Your task to perform on an android device: change notifications settings Image 0: 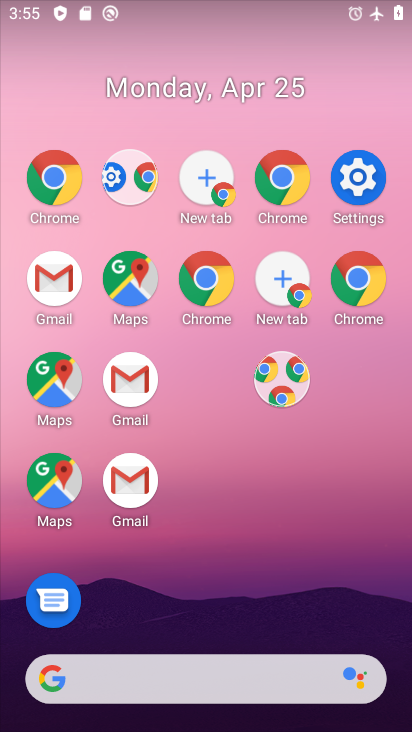
Step 0: drag from (270, 543) to (219, 6)
Your task to perform on an android device: change notifications settings Image 1: 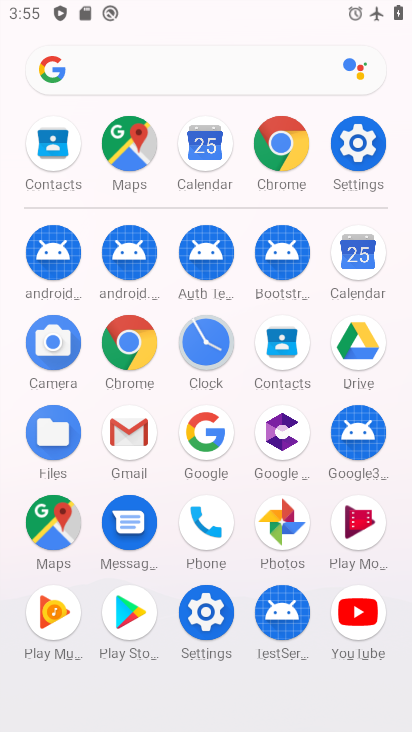
Step 1: click (361, 150)
Your task to perform on an android device: change notifications settings Image 2: 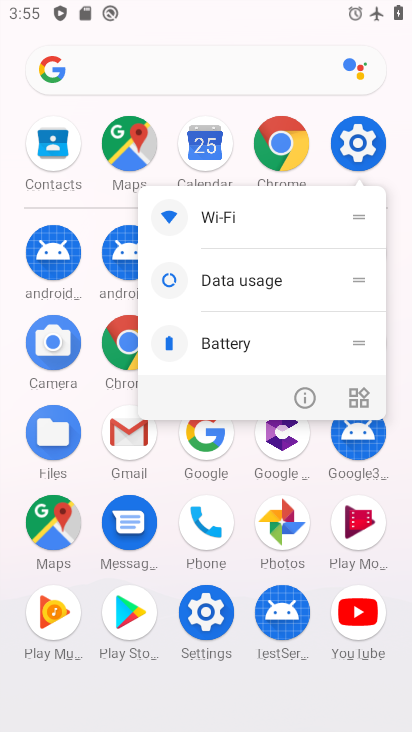
Step 2: click (357, 151)
Your task to perform on an android device: change notifications settings Image 3: 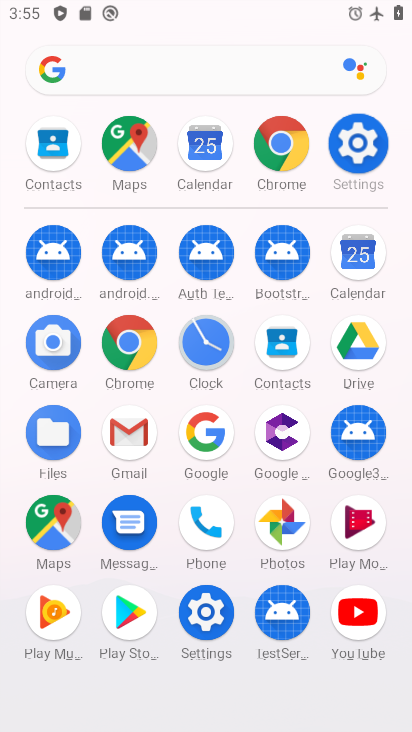
Step 3: click (357, 151)
Your task to perform on an android device: change notifications settings Image 4: 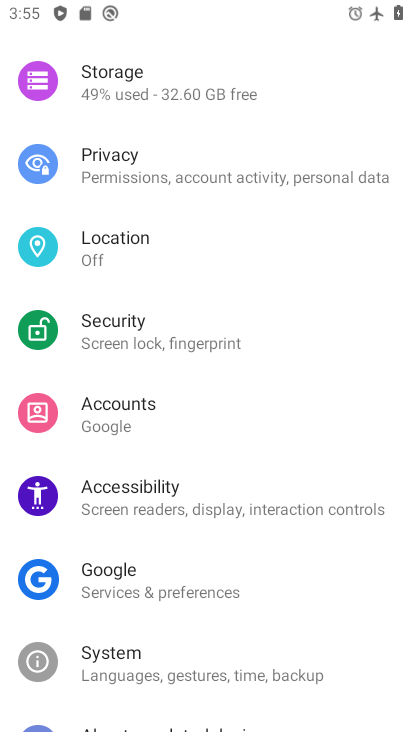
Step 4: click (357, 145)
Your task to perform on an android device: change notifications settings Image 5: 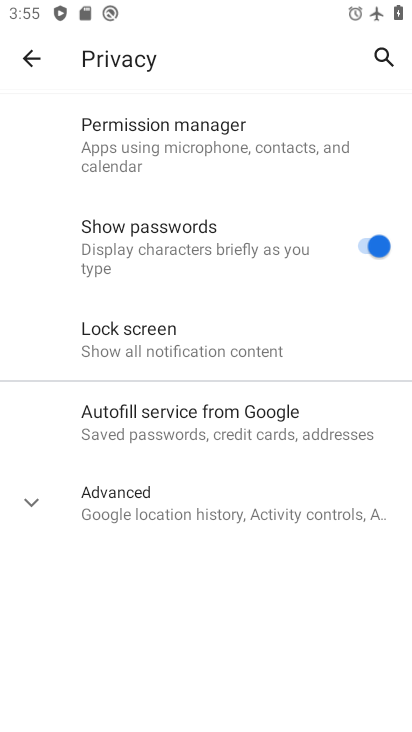
Step 5: click (17, 60)
Your task to perform on an android device: change notifications settings Image 6: 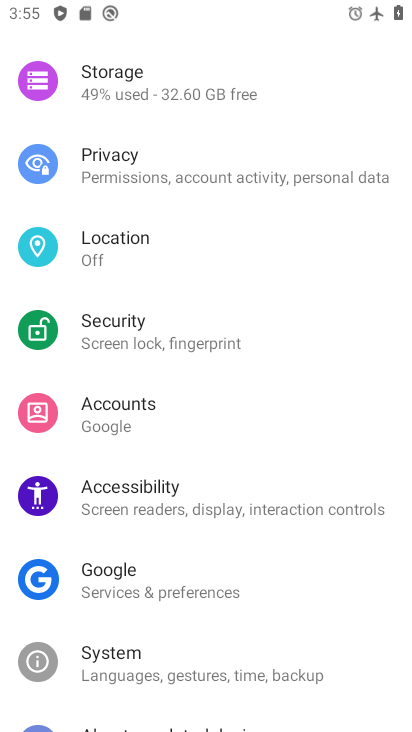
Step 6: drag from (128, 93) to (155, 590)
Your task to perform on an android device: change notifications settings Image 7: 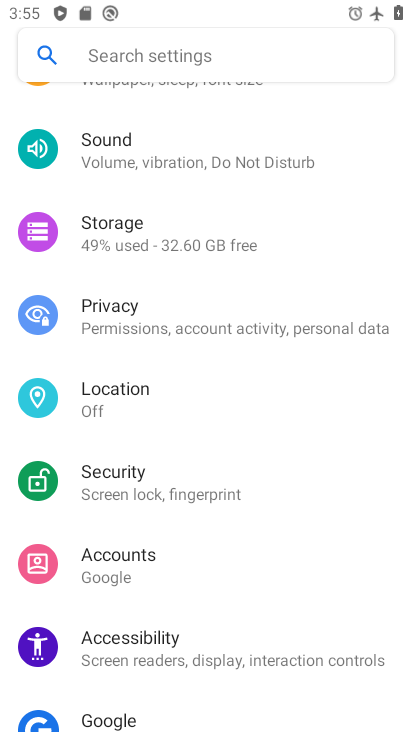
Step 7: drag from (181, 473) to (190, 536)
Your task to perform on an android device: change notifications settings Image 8: 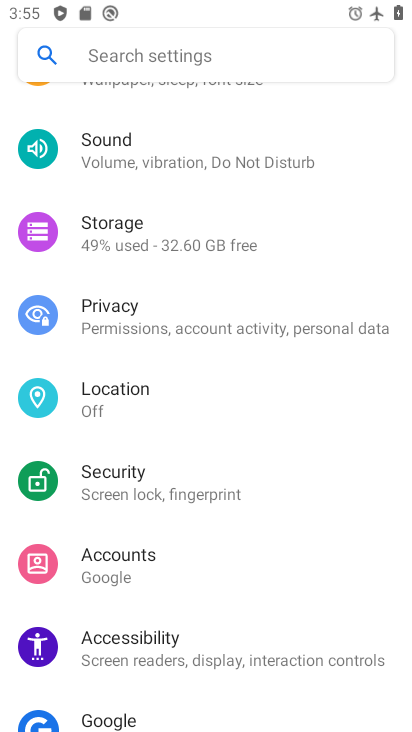
Step 8: drag from (161, 435) to (109, 2)
Your task to perform on an android device: change notifications settings Image 9: 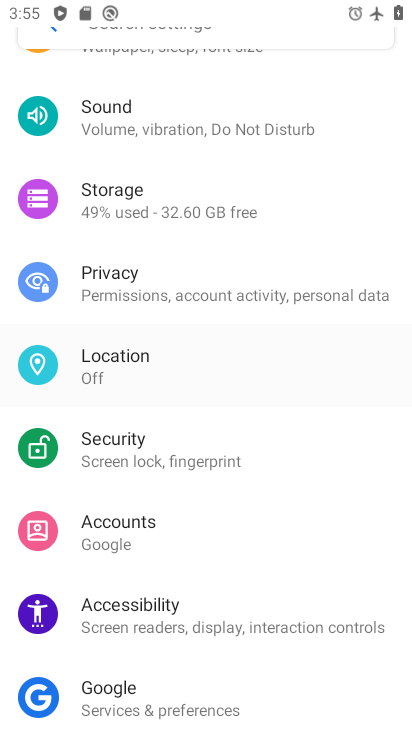
Step 9: drag from (234, 496) to (184, 7)
Your task to perform on an android device: change notifications settings Image 10: 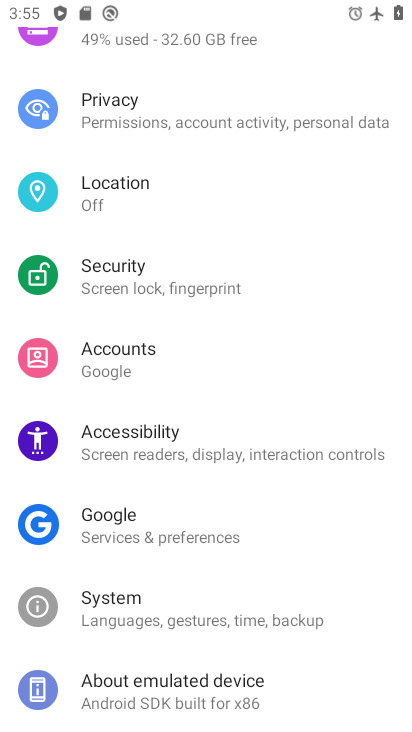
Step 10: drag from (141, 152) to (182, 628)
Your task to perform on an android device: change notifications settings Image 11: 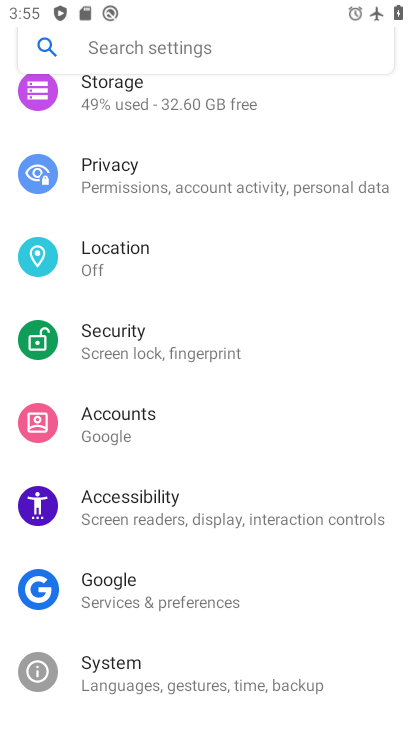
Step 11: drag from (166, 200) to (196, 718)
Your task to perform on an android device: change notifications settings Image 12: 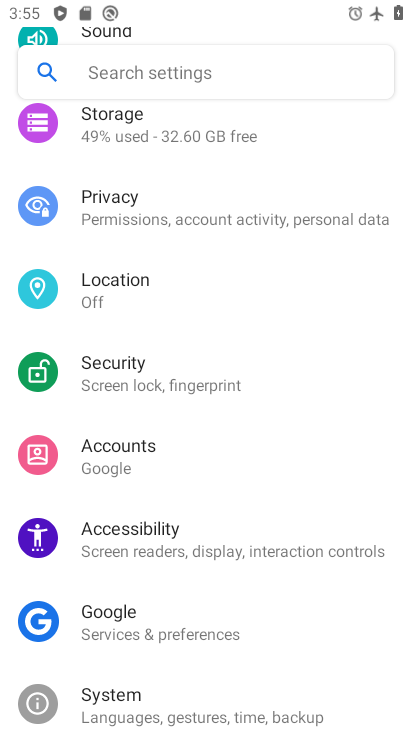
Step 12: drag from (179, 430) to (199, 682)
Your task to perform on an android device: change notifications settings Image 13: 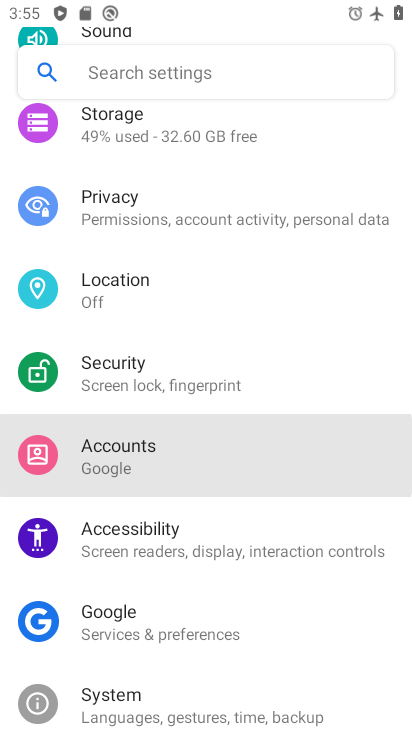
Step 13: click (157, 448)
Your task to perform on an android device: change notifications settings Image 14: 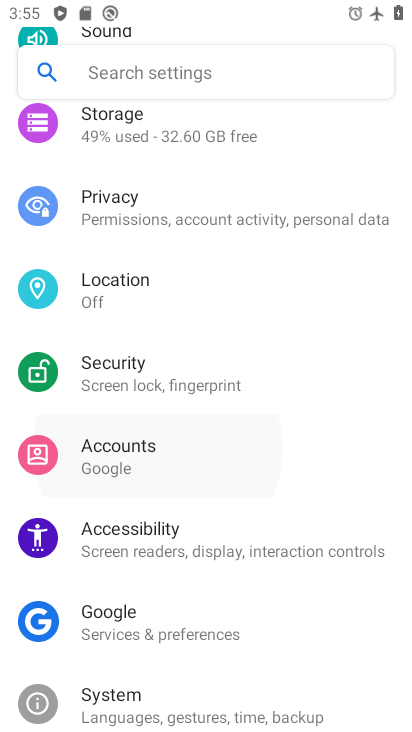
Step 14: drag from (119, 74) to (185, 631)
Your task to perform on an android device: change notifications settings Image 15: 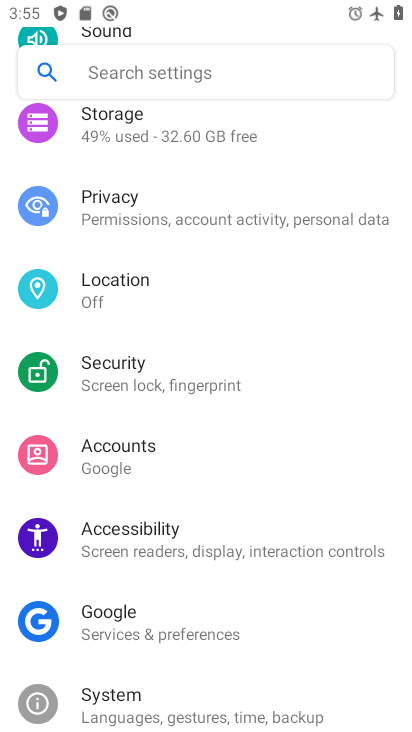
Step 15: drag from (165, 388) to (184, 672)
Your task to perform on an android device: change notifications settings Image 16: 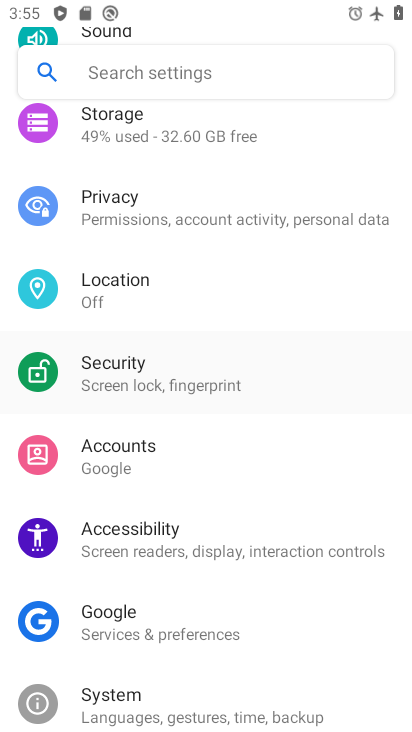
Step 16: drag from (209, 467) to (234, 632)
Your task to perform on an android device: change notifications settings Image 17: 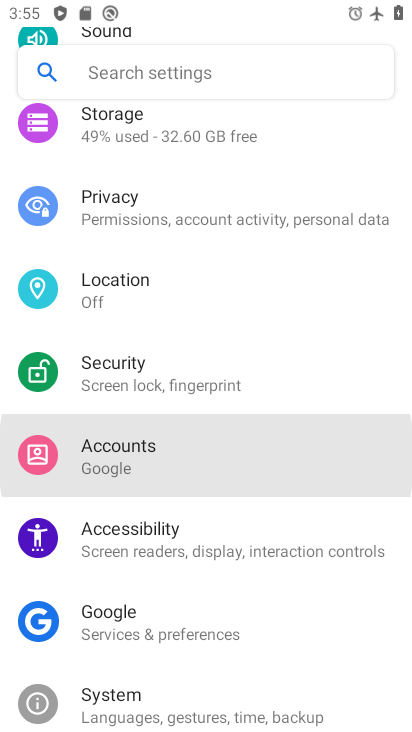
Step 17: drag from (186, 391) to (206, 549)
Your task to perform on an android device: change notifications settings Image 18: 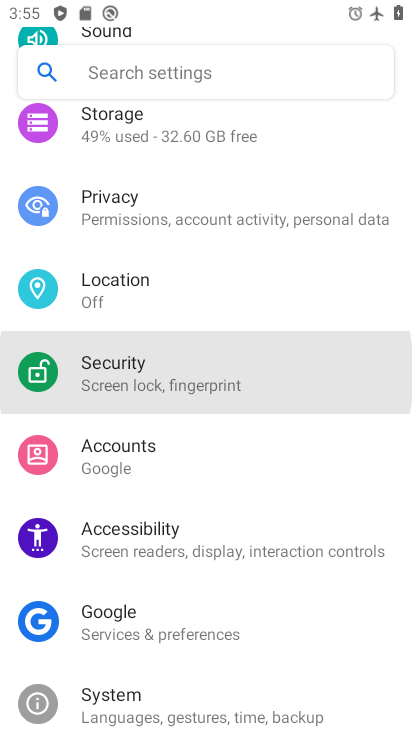
Step 18: drag from (165, 207) to (208, 675)
Your task to perform on an android device: change notifications settings Image 19: 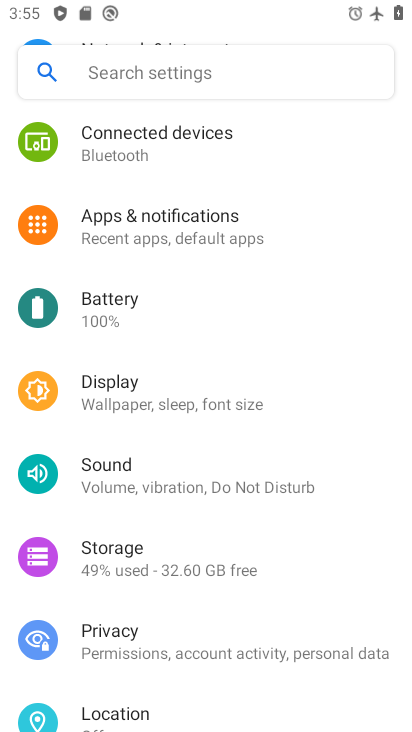
Step 19: drag from (240, 196) to (257, 545)
Your task to perform on an android device: change notifications settings Image 20: 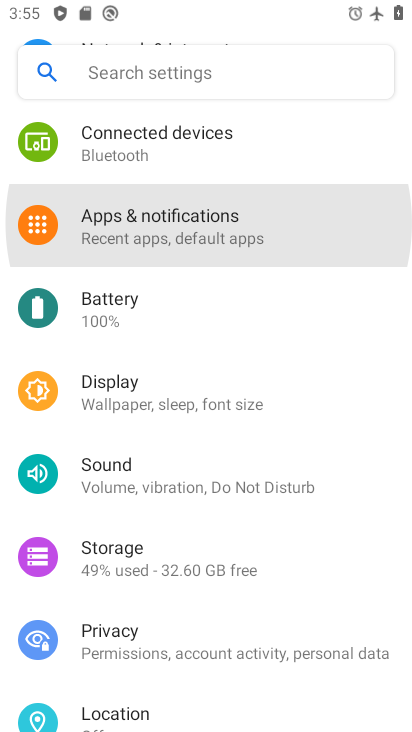
Step 20: drag from (204, 611) to (215, 646)
Your task to perform on an android device: change notifications settings Image 21: 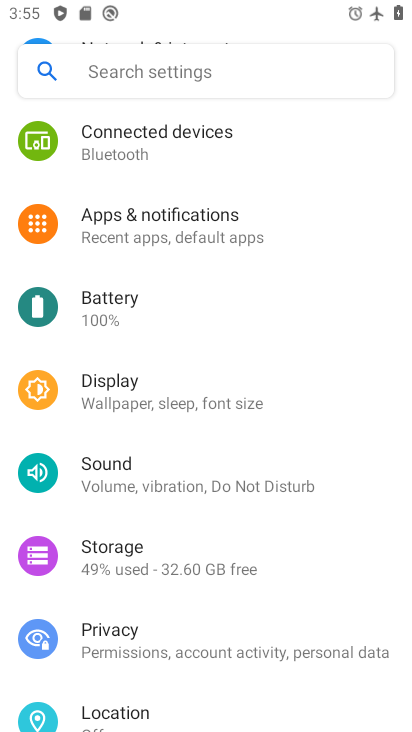
Step 21: click (176, 235)
Your task to perform on an android device: change notifications settings Image 22: 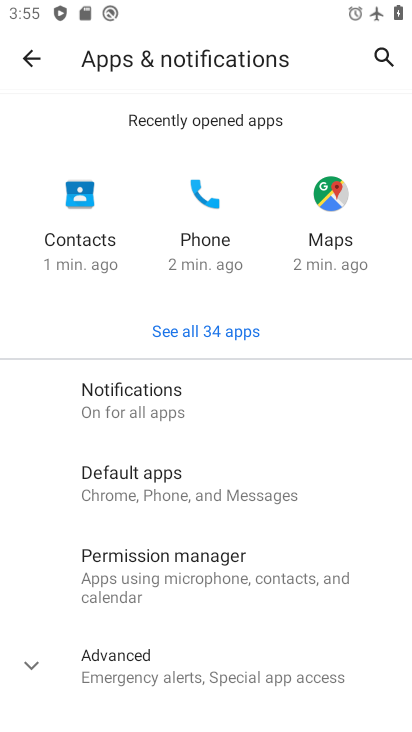
Step 22: drag from (178, 420) to (56, 136)
Your task to perform on an android device: change notifications settings Image 23: 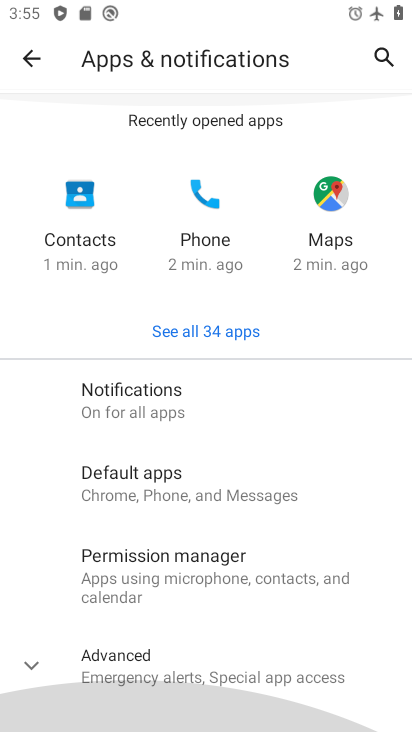
Step 23: drag from (119, 355) to (101, 28)
Your task to perform on an android device: change notifications settings Image 24: 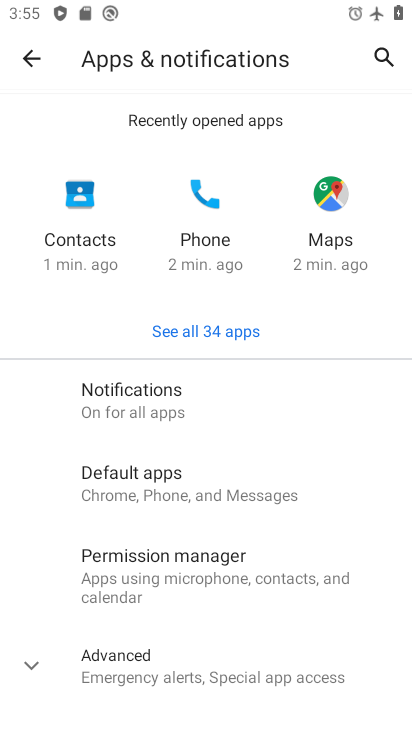
Step 24: click (115, 665)
Your task to perform on an android device: change notifications settings Image 25: 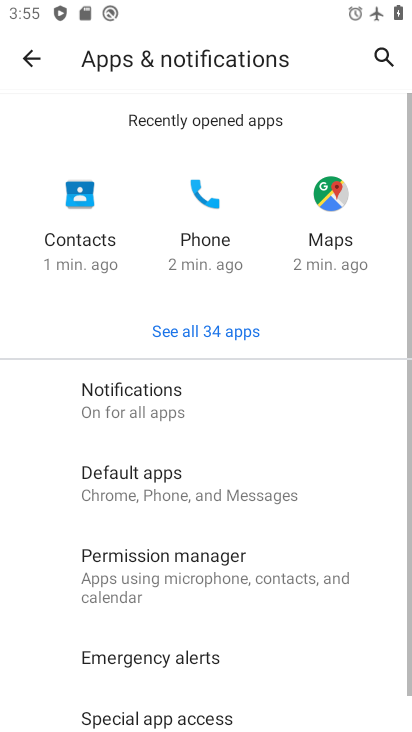
Step 25: drag from (220, 613) to (170, 46)
Your task to perform on an android device: change notifications settings Image 26: 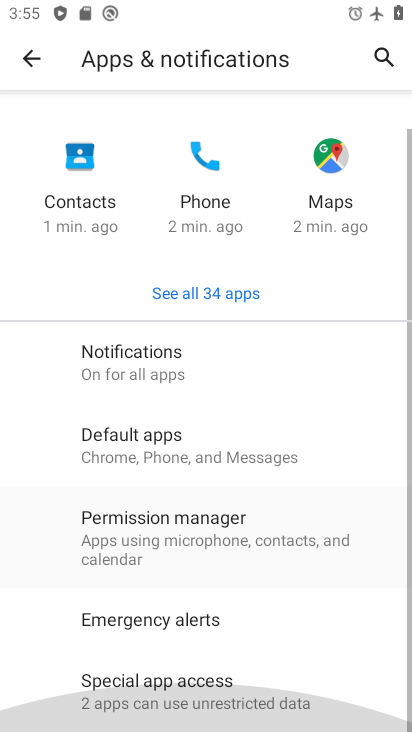
Step 26: drag from (186, 496) to (134, 161)
Your task to perform on an android device: change notifications settings Image 27: 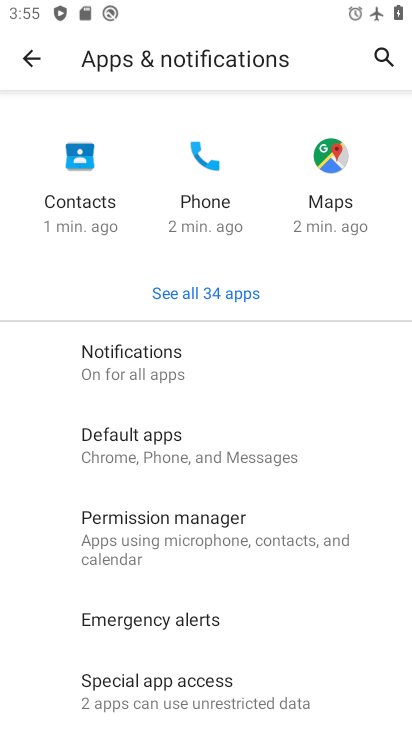
Step 27: click (126, 357)
Your task to perform on an android device: change notifications settings Image 28: 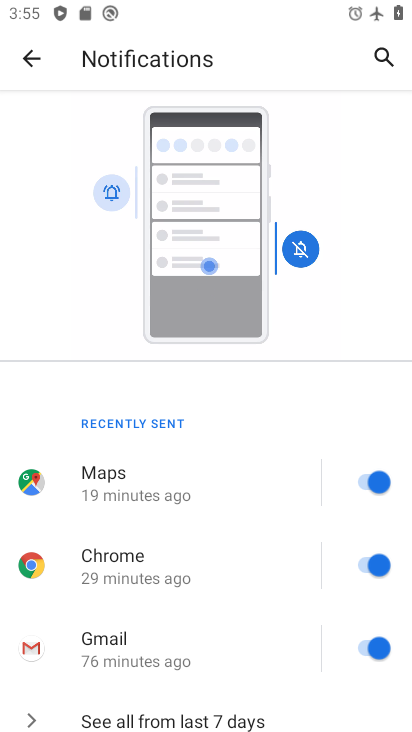
Step 28: drag from (155, 440) to (78, 7)
Your task to perform on an android device: change notifications settings Image 29: 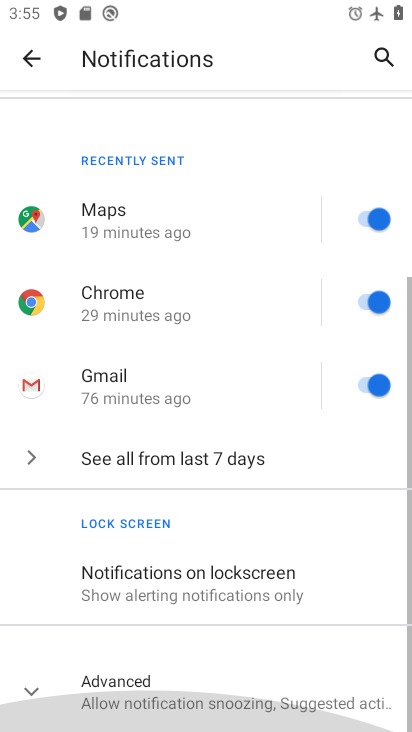
Step 29: drag from (167, 600) to (200, 125)
Your task to perform on an android device: change notifications settings Image 30: 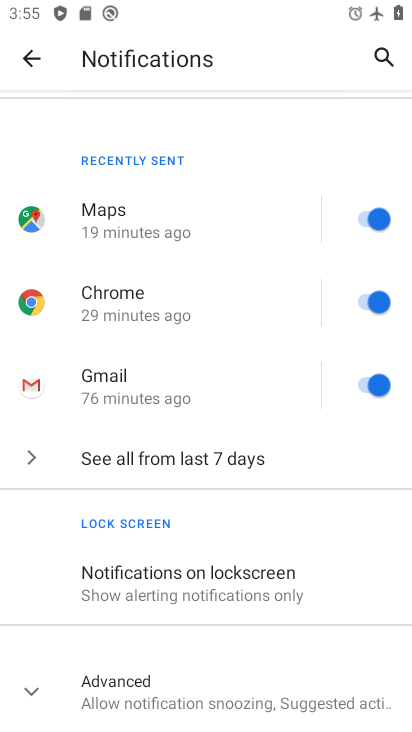
Step 30: click (119, 689)
Your task to perform on an android device: change notifications settings Image 31: 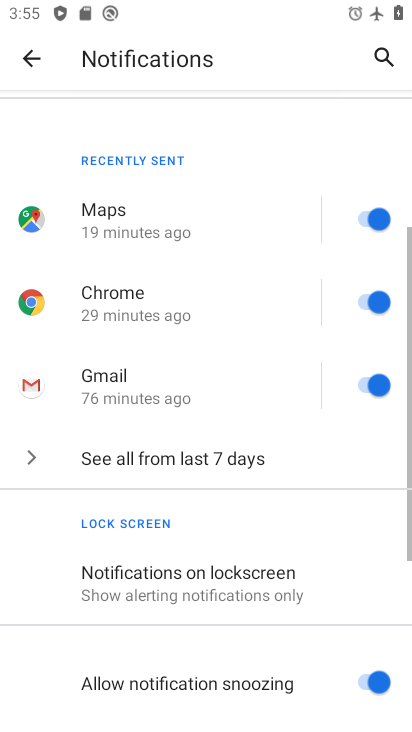
Step 31: drag from (181, 474) to (125, 22)
Your task to perform on an android device: change notifications settings Image 32: 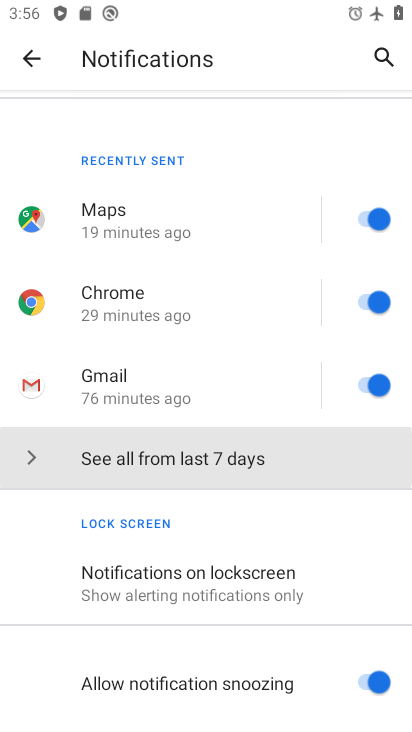
Step 32: drag from (200, 566) to (146, 0)
Your task to perform on an android device: change notifications settings Image 33: 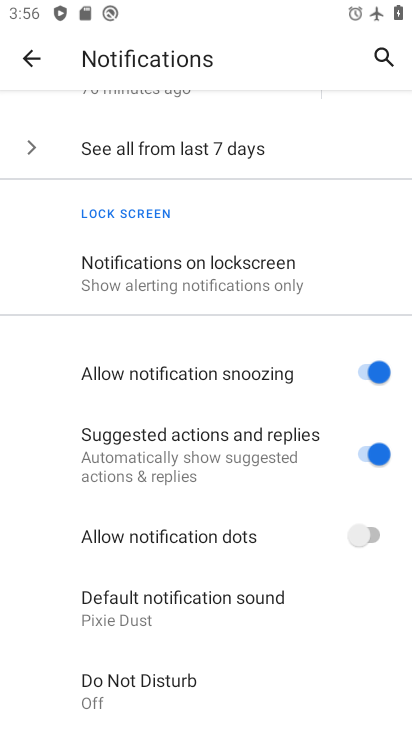
Step 33: click (382, 374)
Your task to perform on an android device: change notifications settings Image 34: 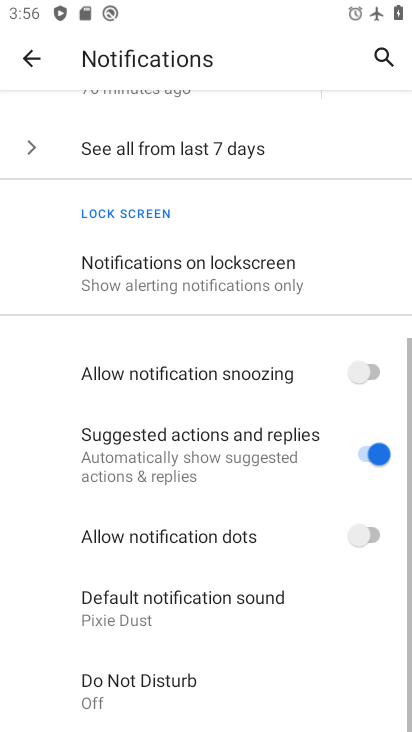
Step 34: click (359, 541)
Your task to perform on an android device: change notifications settings Image 35: 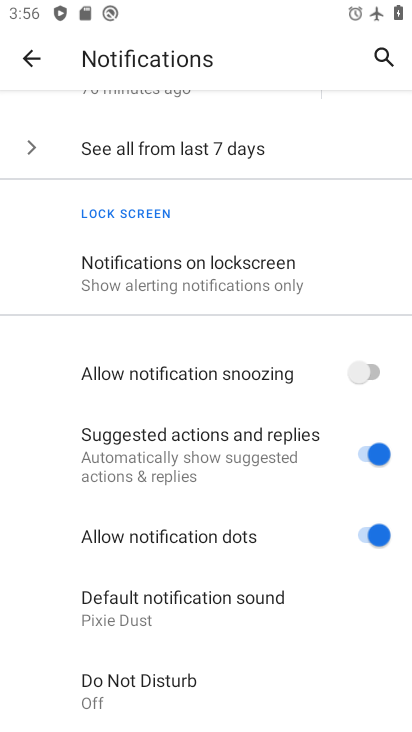
Step 35: task complete